Your task to perform on an android device: Go to sound settings Image 0: 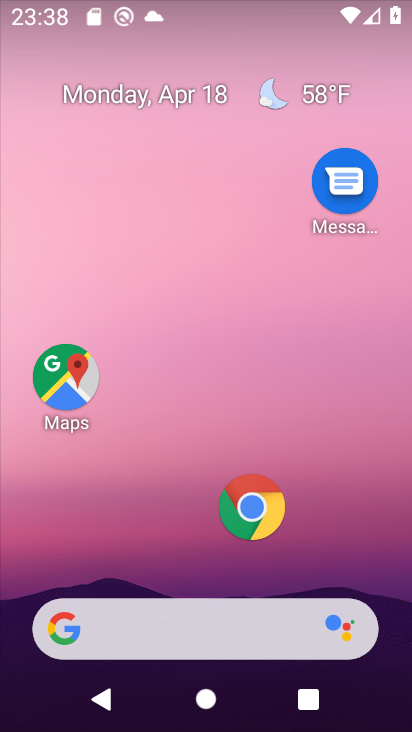
Step 0: drag from (197, 579) to (247, 2)
Your task to perform on an android device: Go to sound settings Image 1: 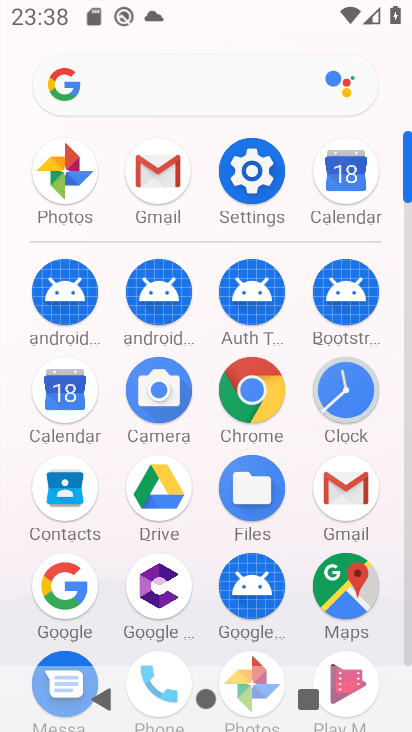
Step 1: click (265, 188)
Your task to perform on an android device: Go to sound settings Image 2: 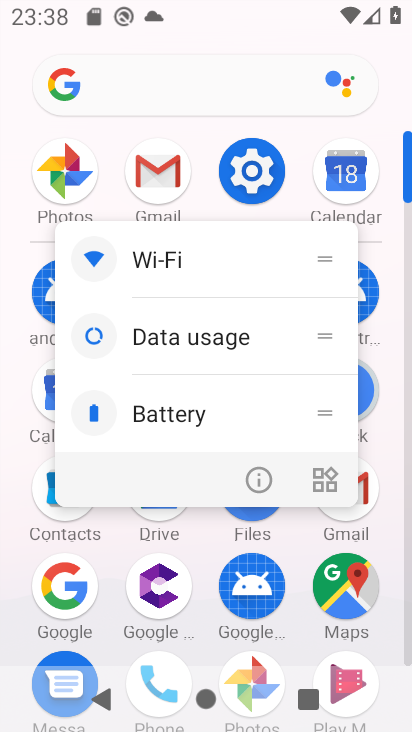
Step 2: click (254, 186)
Your task to perform on an android device: Go to sound settings Image 3: 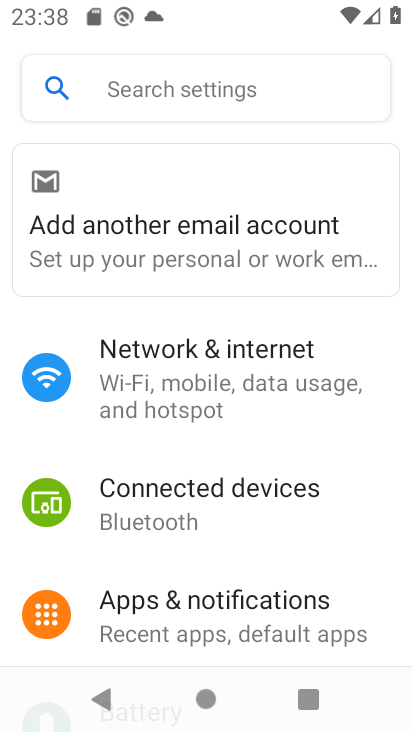
Step 3: drag from (218, 500) to (281, 56)
Your task to perform on an android device: Go to sound settings Image 4: 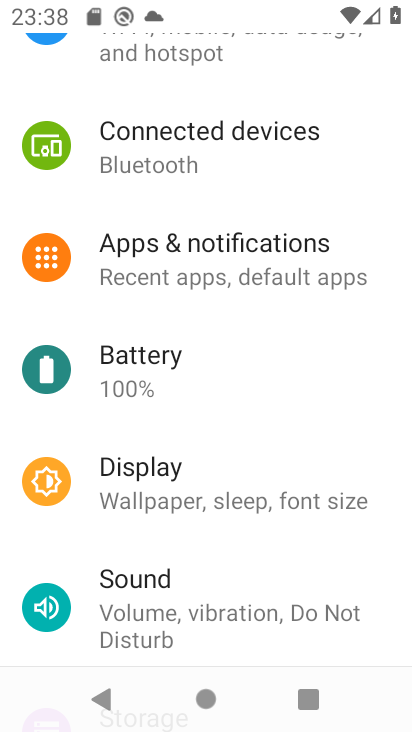
Step 4: drag from (220, 470) to (261, 204)
Your task to perform on an android device: Go to sound settings Image 5: 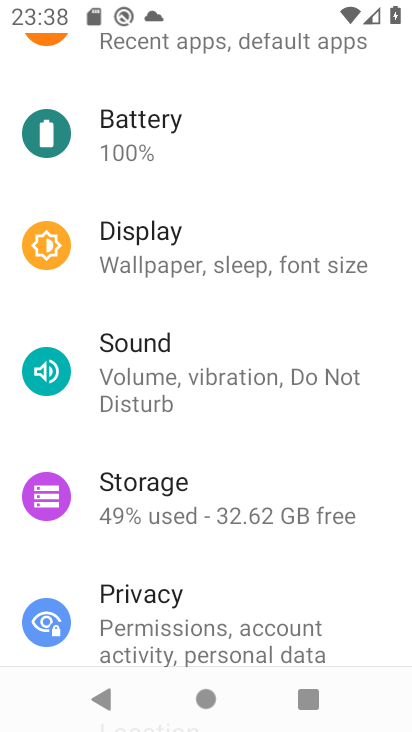
Step 5: click (189, 374)
Your task to perform on an android device: Go to sound settings Image 6: 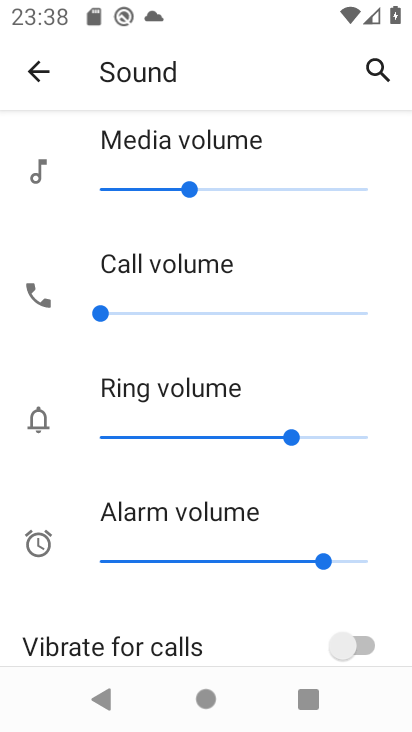
Step 6: task complete